Your task to perform on an android device: turn on airplane mode Image 0: 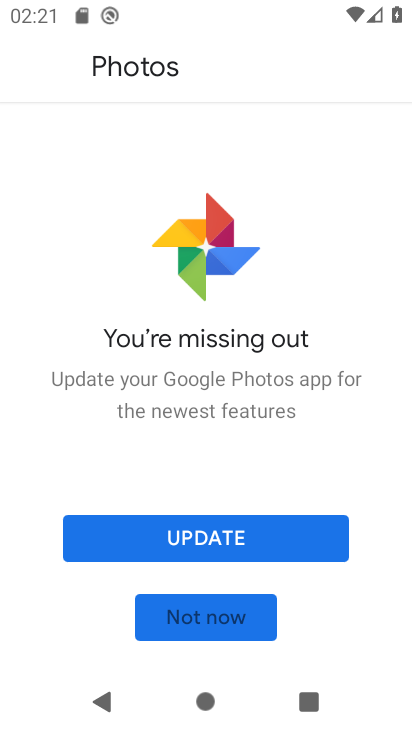
Step 0: press home button
Your task to perform on an android device: turn on airplane mode Image 1: 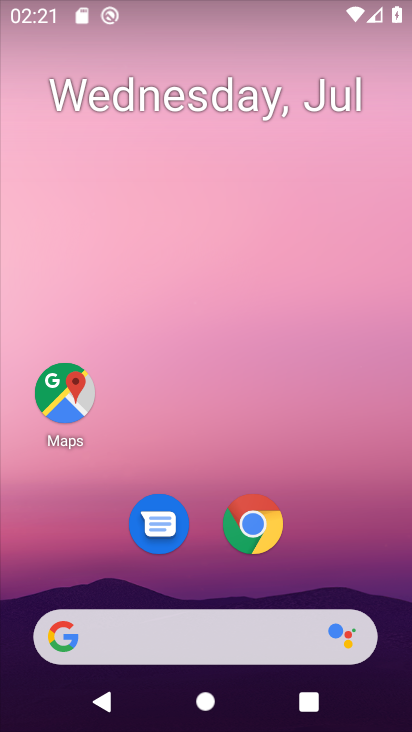
Step 1: drag from (313, 539) to (318, 39)
Your task to perform on an android device: turn on airplane mode Image 2: 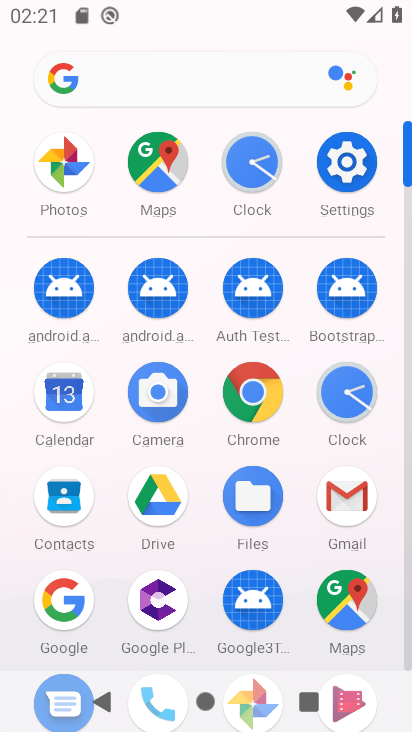
Step 2: click (349, 161)
Your task to perform on an android device: turn on airplane mode Image 3: 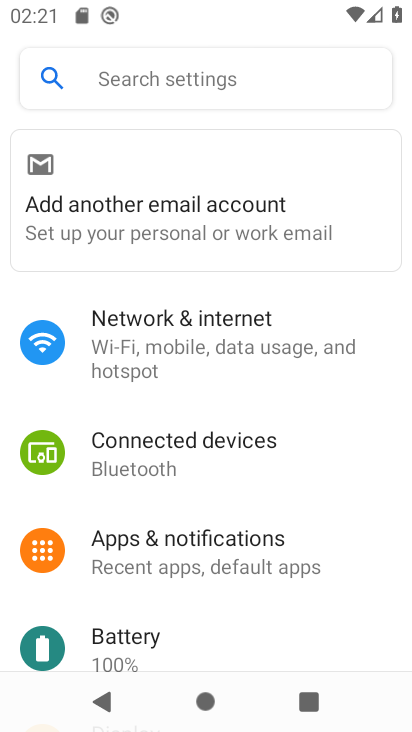
Step 3: click (268, 333)
Your task to perform on an android device: turn on airplane mode Image 4: 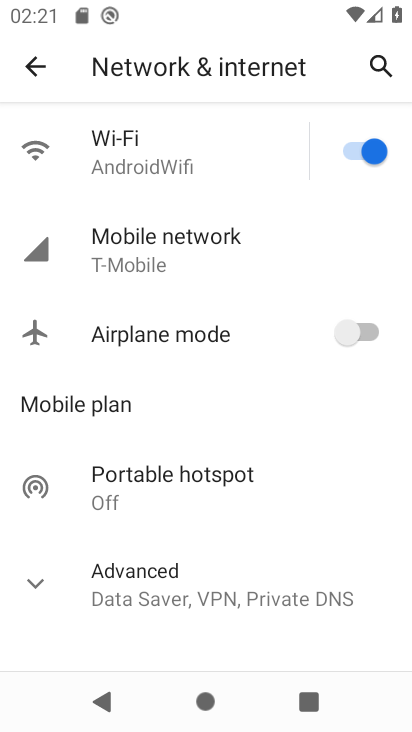
Step 4: click (363, 322)
Your task to perform on an android device: turn on airplane mode Image 5: 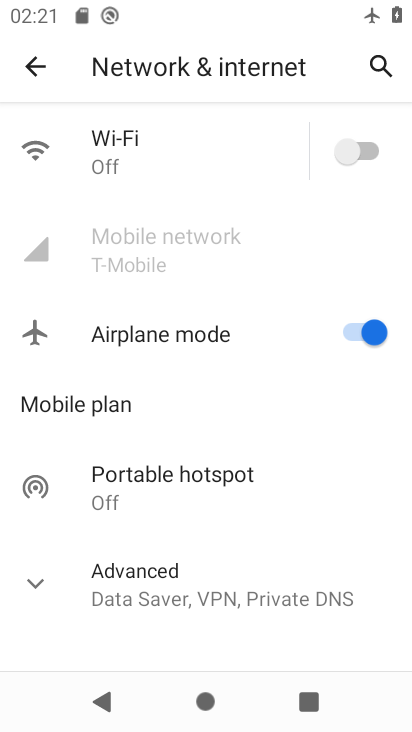
Step 5: task complete